Your task to perform on an android device: choose inbox layout in the gmail app Image 0: 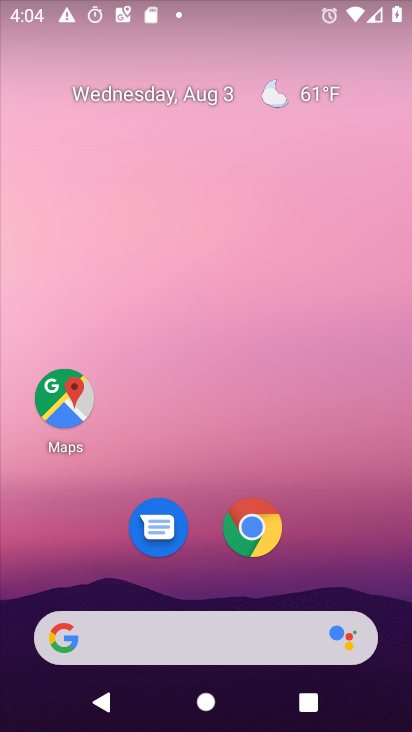
Step 0: drag from (310, 432) to (285, 95)
Your task to perform on an android device: choose inbox layout in the gmail app Image 1: 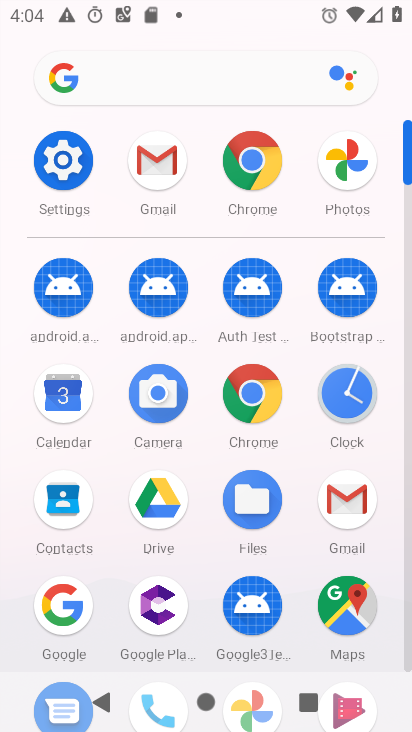
Step 1: click (350, 505)
Your task to perform on an android device: choose inbox layout in the gmail app Image 2: 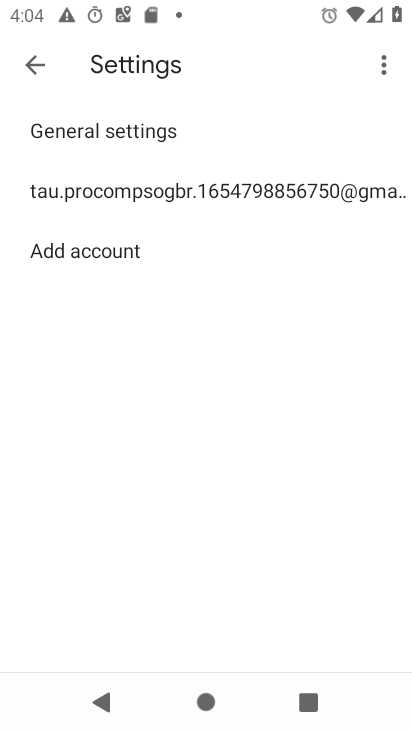
Step 2: click (79, 186)
Your task to perform on an android device: choose inbox layout in the gmail app Image 3: 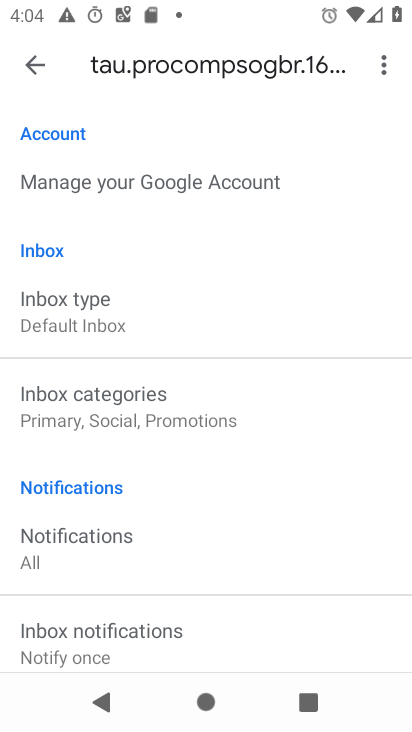
Step 3: click (96, 302)
Your task to perform on an android device: choose inbox layout in the gmail app Image 4: 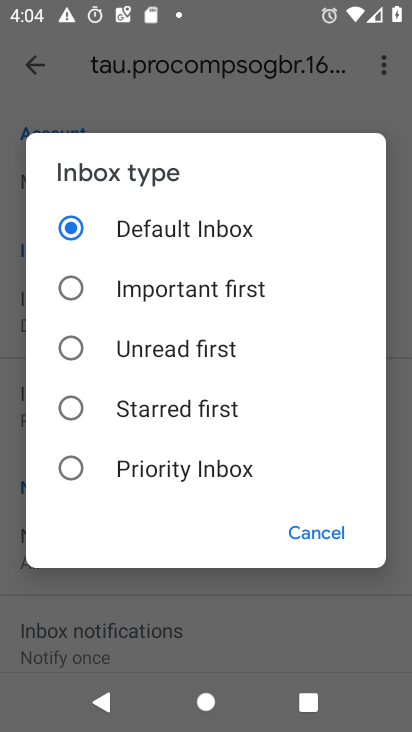
Step 4: task complete